Your task to perform on an android device: Open the web browser Image 0: 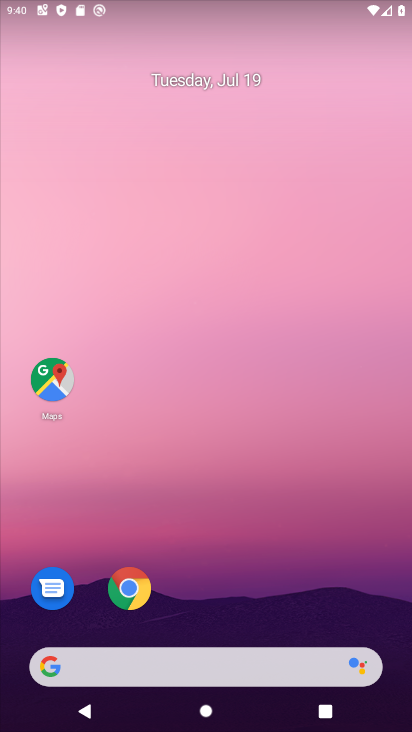
Step 0: drag from (235, 619) to (196, 326)
Your task to perform on an android device: Open the web browser Image 1: 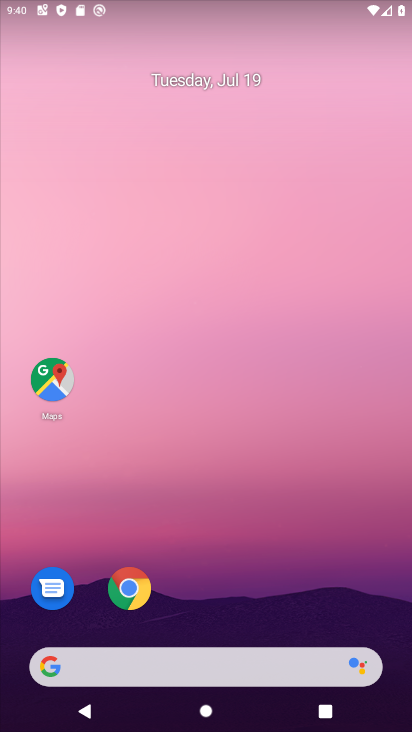
Step 1: drag from (221, 597) to (217, 275)
Your task to perform on an android device: Open the web browser Image 2: 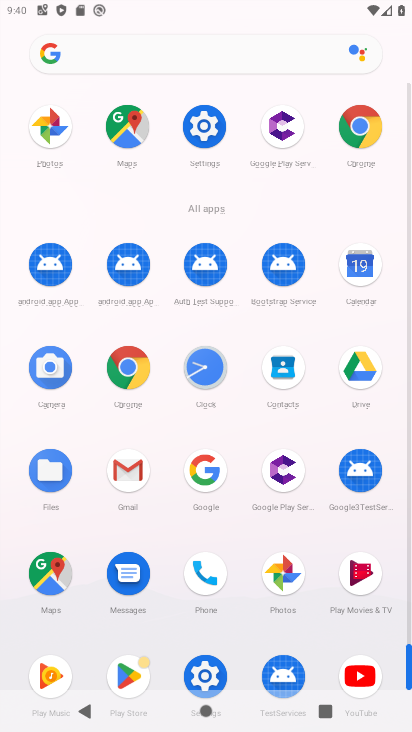
Step 2: click (205, 129)
Your task to perform on an android device: Open the web browser Image 3: 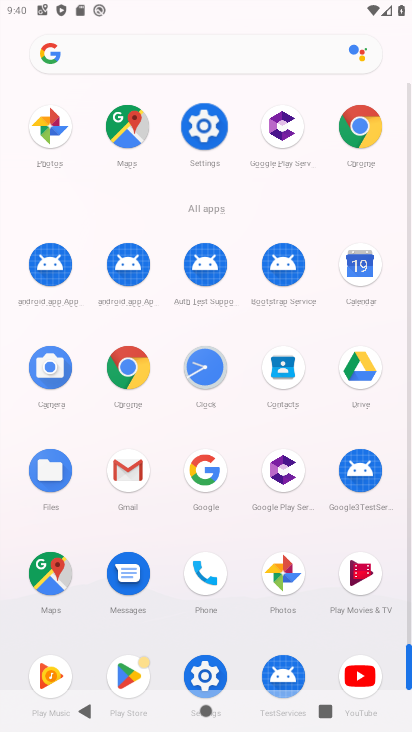
Step 3: click (205, 129)
Your task to perform on an android device: Open the web browser Image 4: 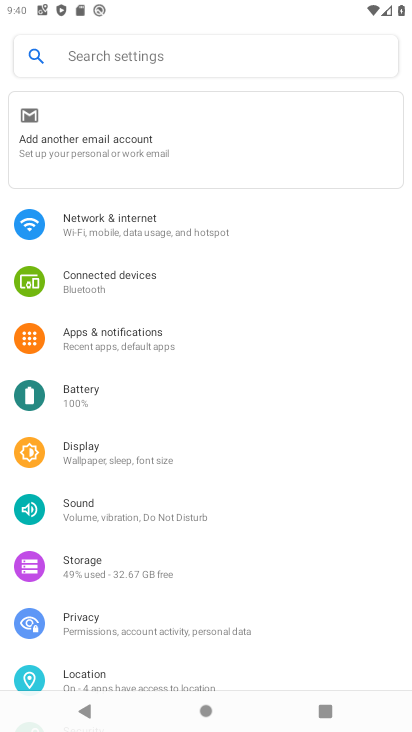
Step 4: press back button
Your task to perform on an android device: Open the web browser Image 5: 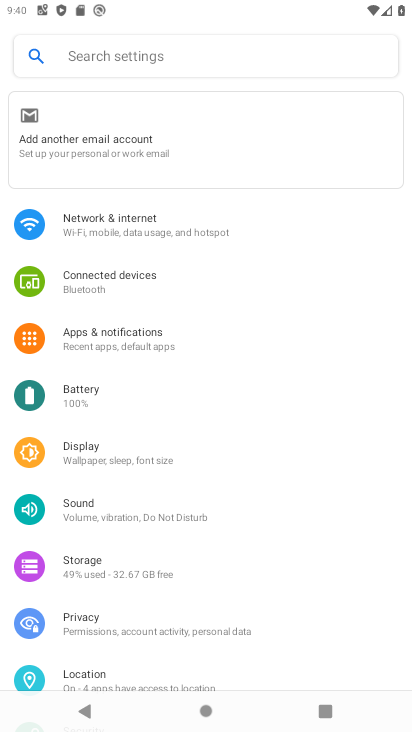
Step 5: press back button
Your task to perform on an android device: Open the web browser Image 6: 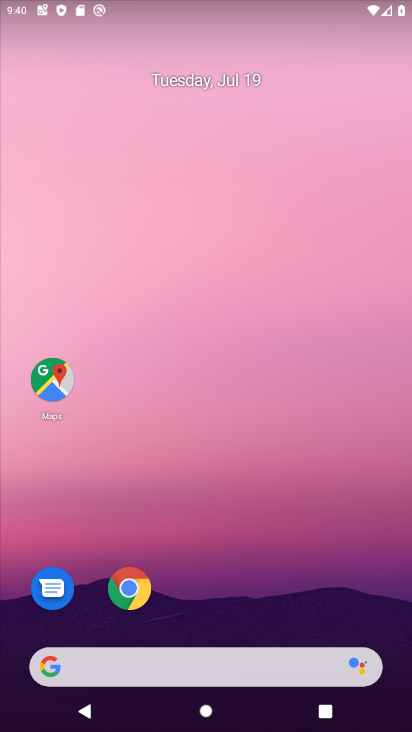
Step 6: drag from (219, 438) to (219, 212)
Your task to perform on an android device: Open the web browser Image 7: 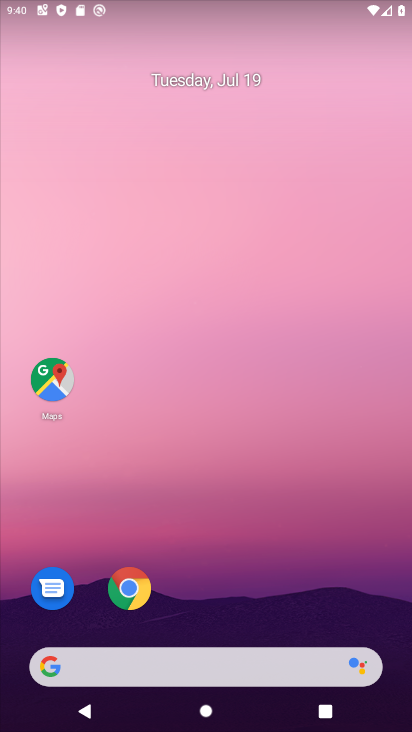
Step 7: drag from (245, 581) to (242, 266)
Your task to perform on an android device: Open the web browser Image 8: 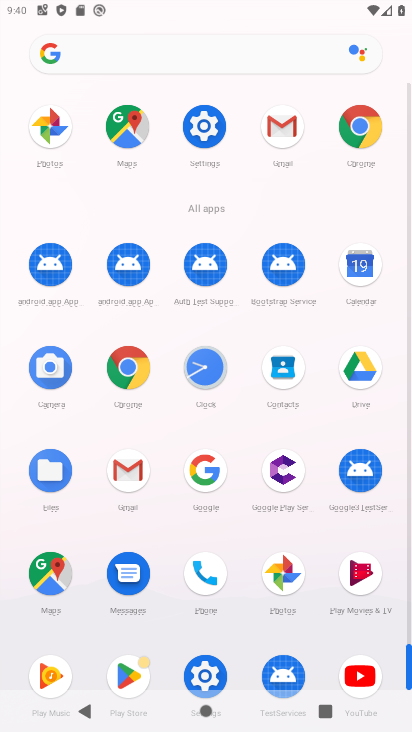
Step 8: click (363, 126)
Your task to perform on an android device: Open the web browser Image 9: 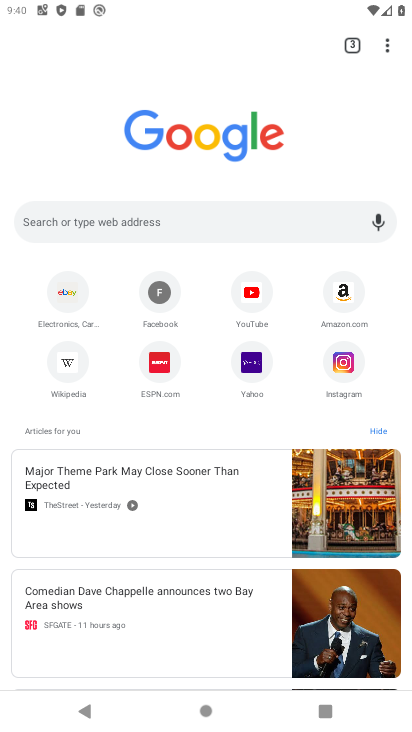
Step 9: click (114, 209)
Your task to perform on an android device: Open the web browser Image 10: 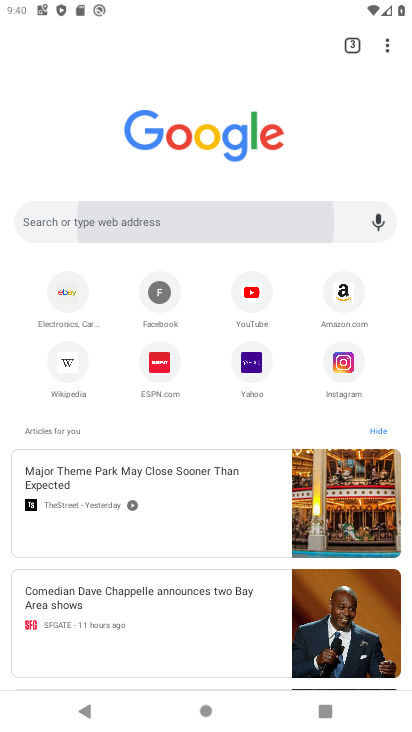
Step 10: click (114, 213)
Your task to perform on an android device: Open the web browser Image 11: 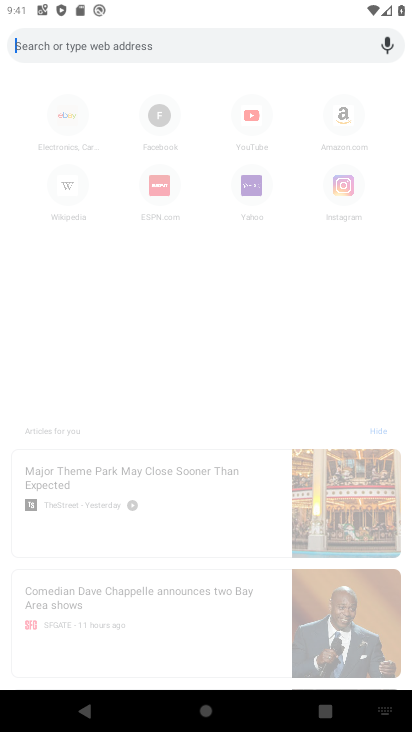
Step 11: task complete